Your task to perform on an android device: check out phone information Image 0: 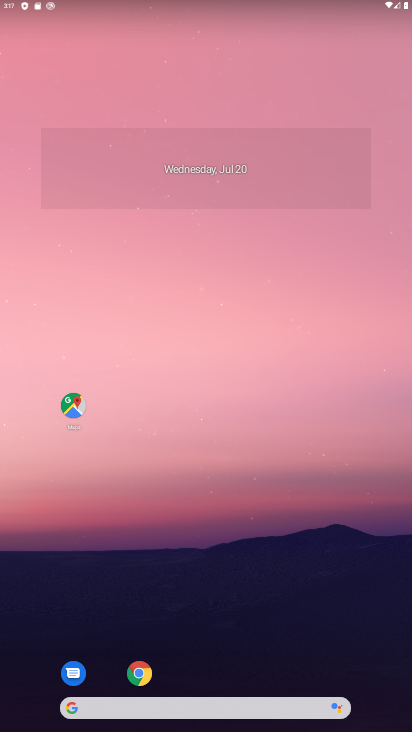
Step 0: drag from (280, 665) to (308, 122)
Your task to perform on an android device: check out phone information Image 1: 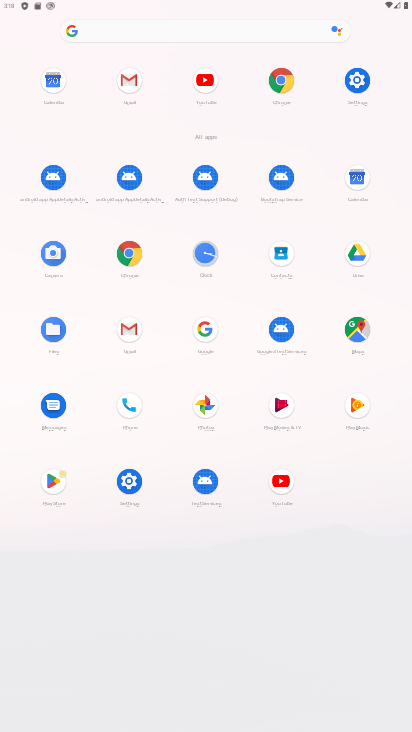
Step 1: click (131, 474)
Your task to perform on an android device: check out phone information Image 2: 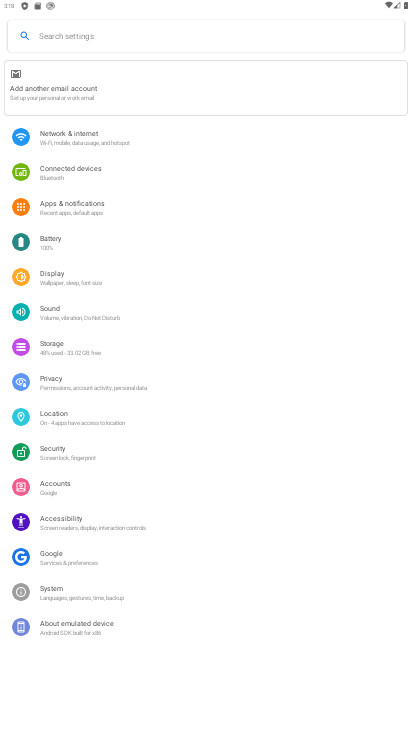
Step 2: task complete